Your task to perform on an android device: uninstall "PUBG MOBILE" Image 0: 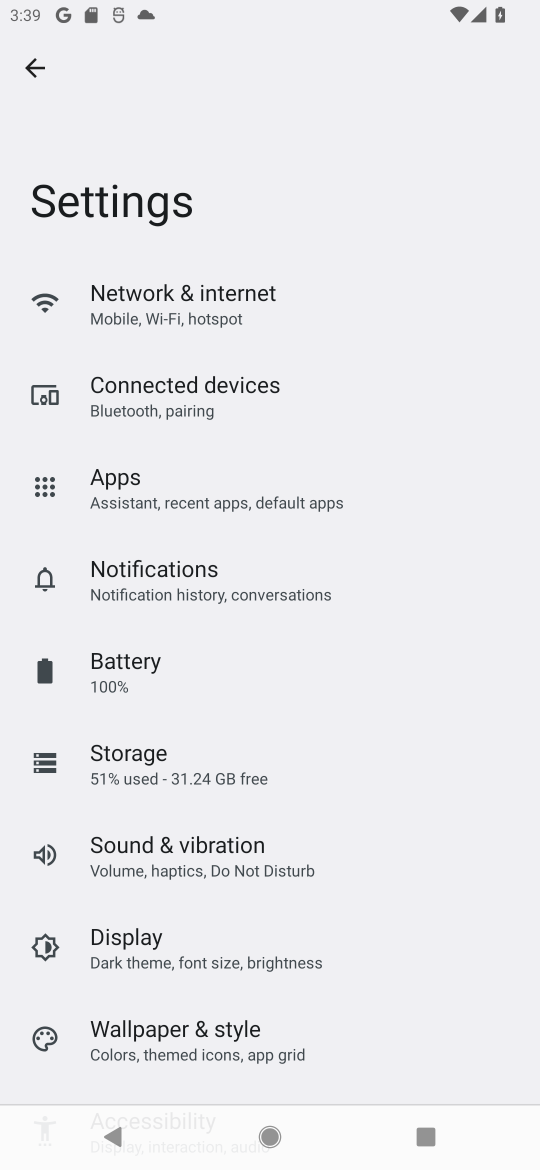
Step 0: press home button
Your task to perform on an android device: uninstall "PUBG MOBILE" Image 1: 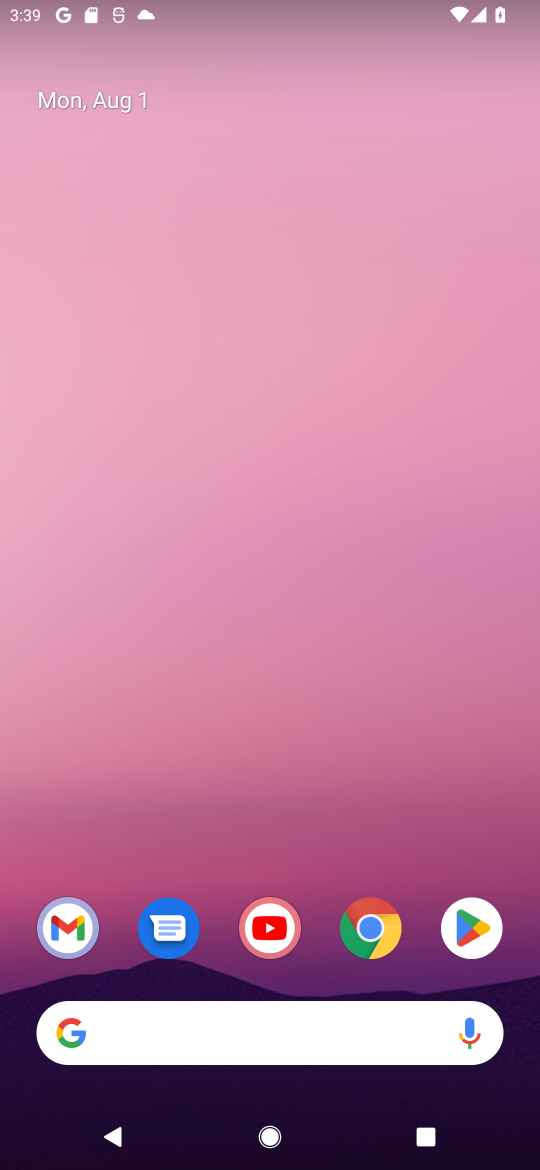
Step 1: click (485, 916)
Your task to perform on an android device: uninstall "PUBG MOBILE" Image 2: 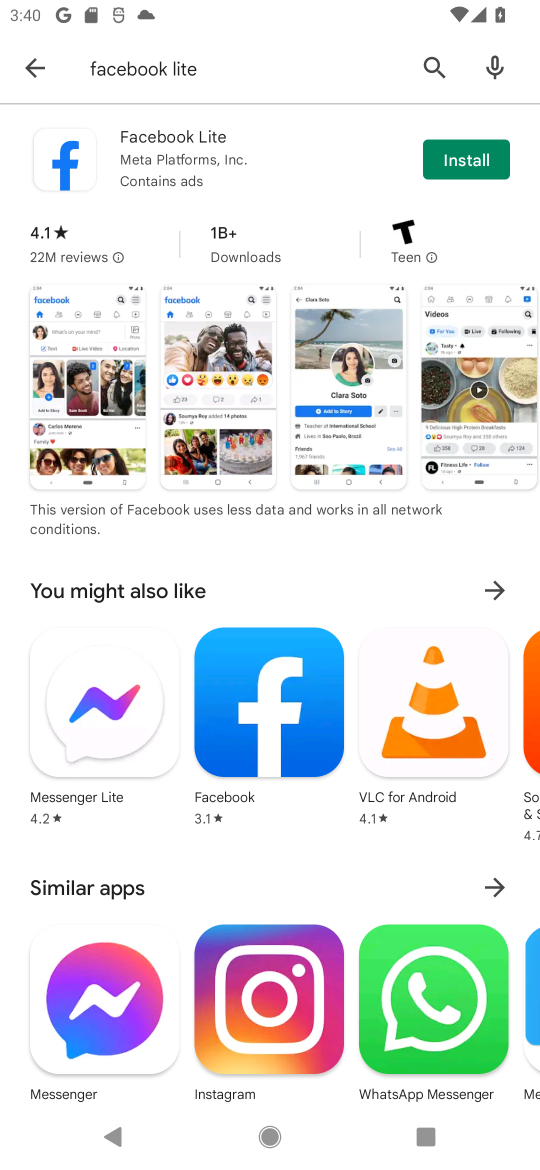
Step 2: click (435, 72)
Your task to perform on an android device: uninstall "PUBG MOBILE" Image 3: 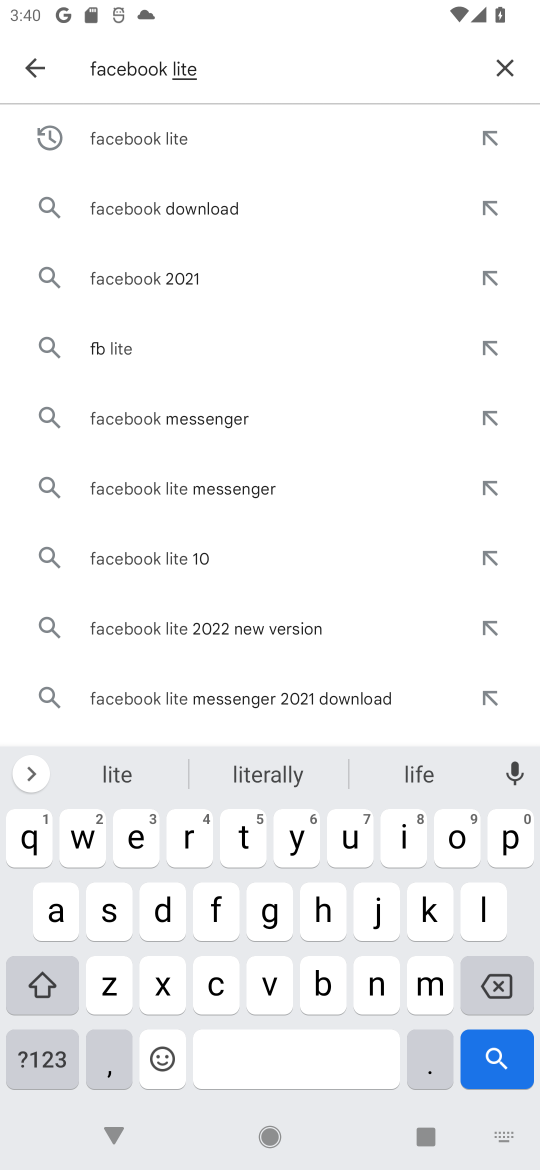
Step 3: click (505, 67)
Your task to perform on an android device: uninstall "PUBG MOBILE" Image 4: 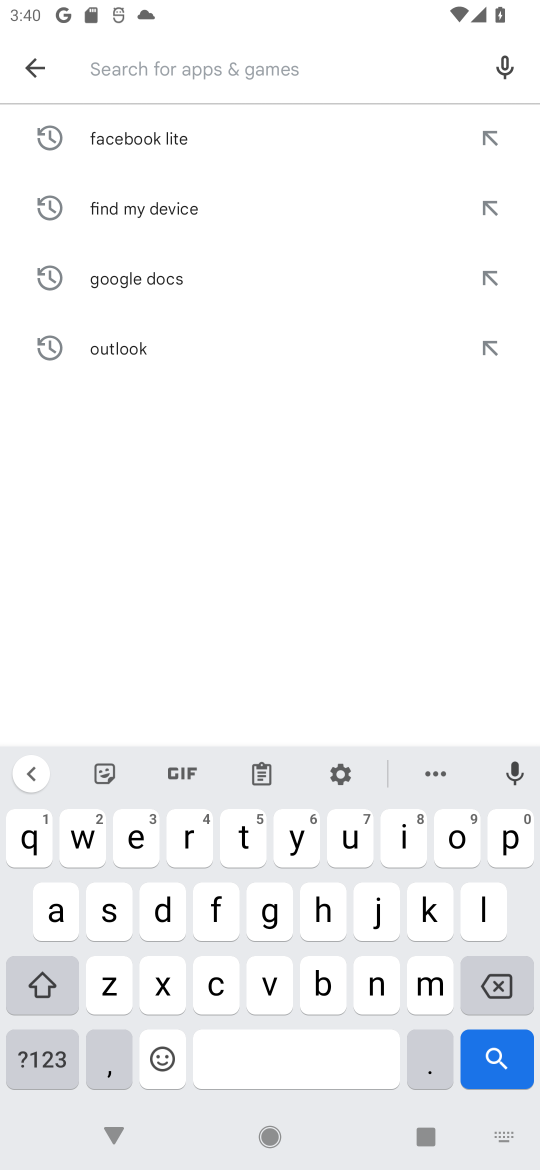
Step 4: click (514, 843)
Your task to perform on an android device: uninstall "PUBG MOBILE" Image 5: 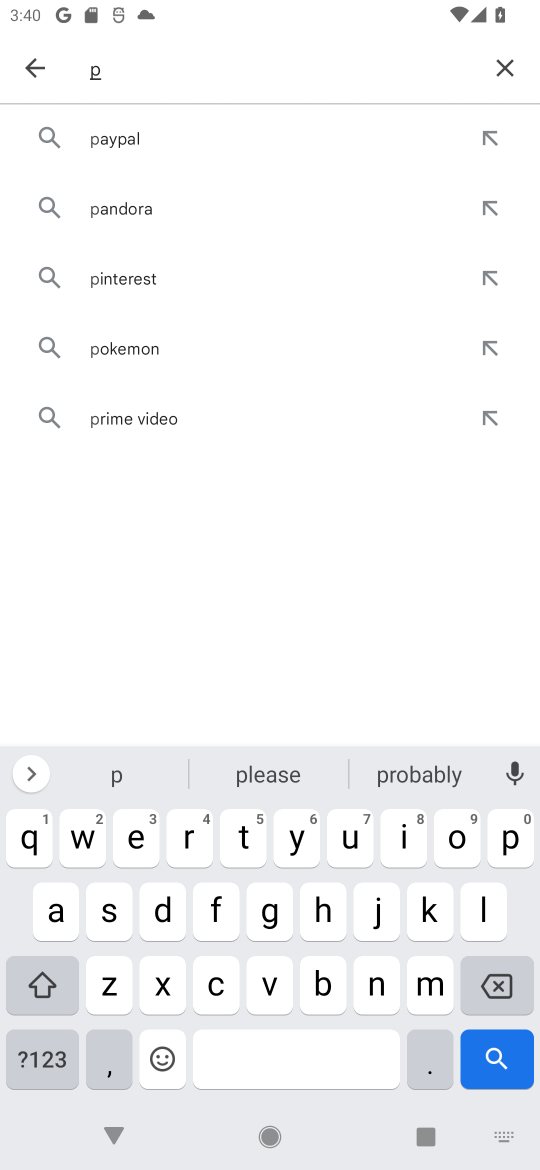
Step 5: click (348, 842)
Your task to perform on an android device: uninstall "PUBG MOBILE" Image 6: 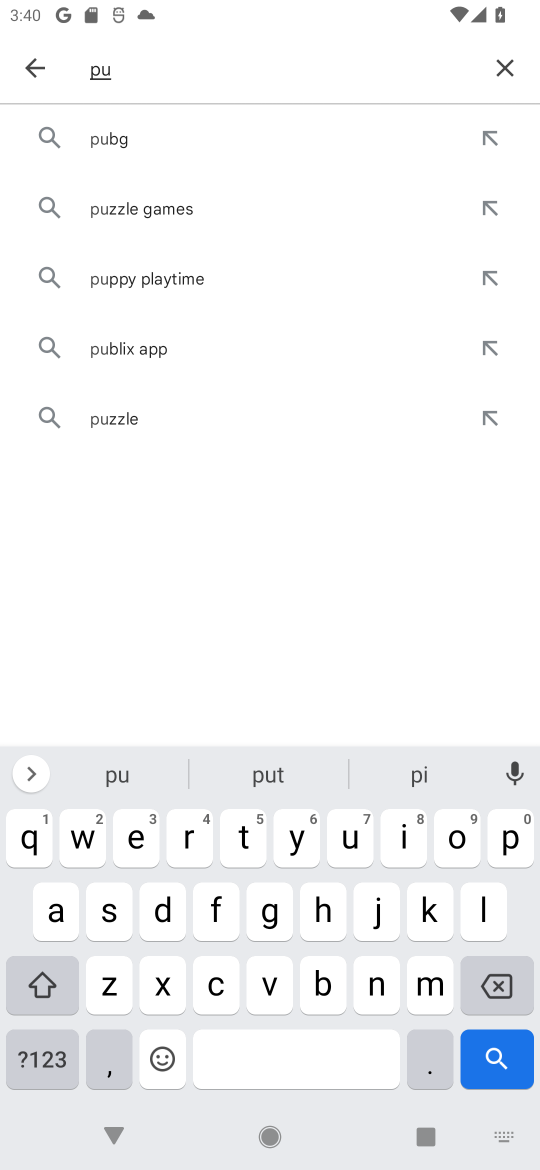
Step 6: click (322, 981)
Your task to perform on an android device: uninstall "PUBG MOBILE" Image 7: 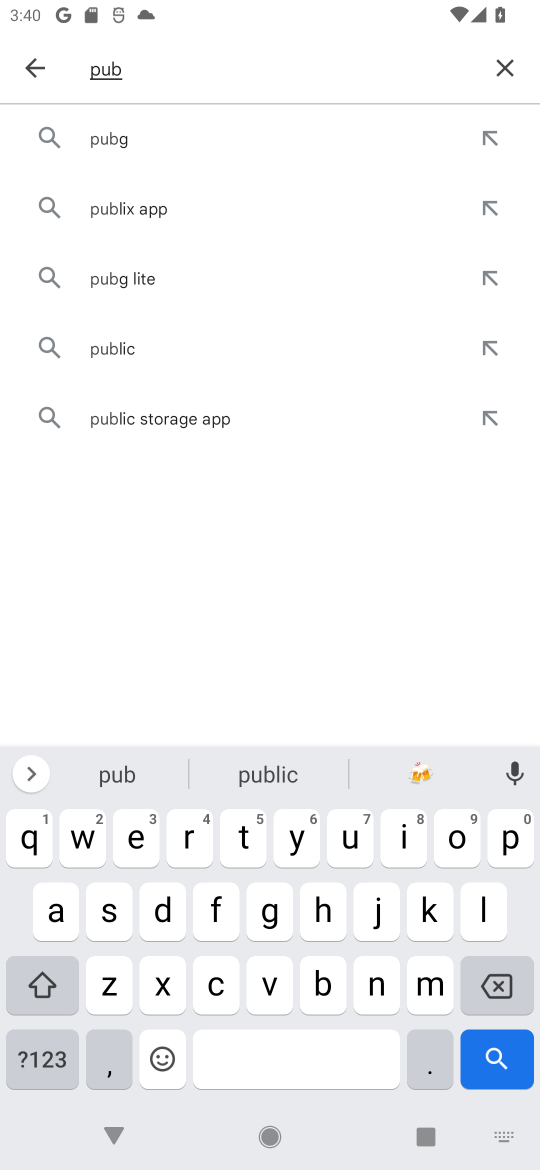
Step 7: click (269, 908)
Your task to perform on an android device: uninstall "PUBG MOBILE" Image 8: 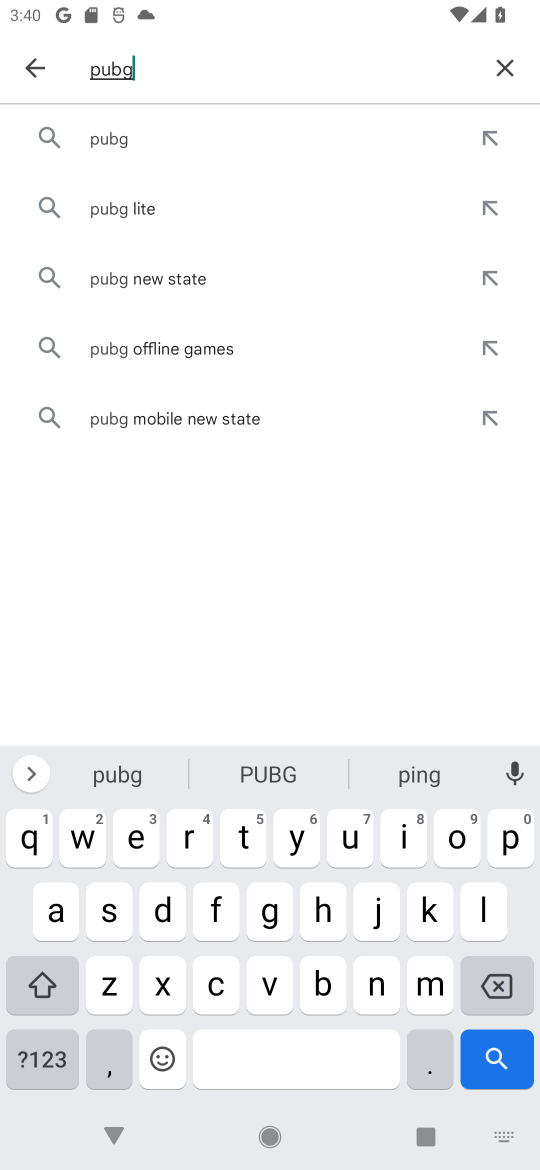
Step 8: click (271, 767)
Your task to perform on an android device: uninstall "PUBG MOBILE" Image 9: 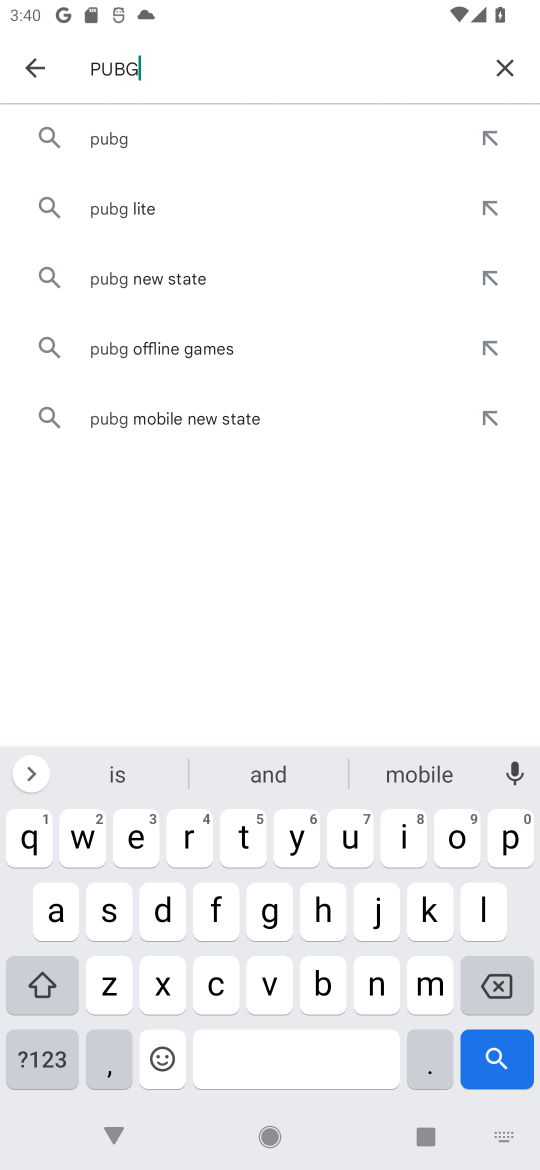
Step 9: click (407, 772)
Your task to perform on an android device: uninstall "PUBG MOBILE" Image 10: 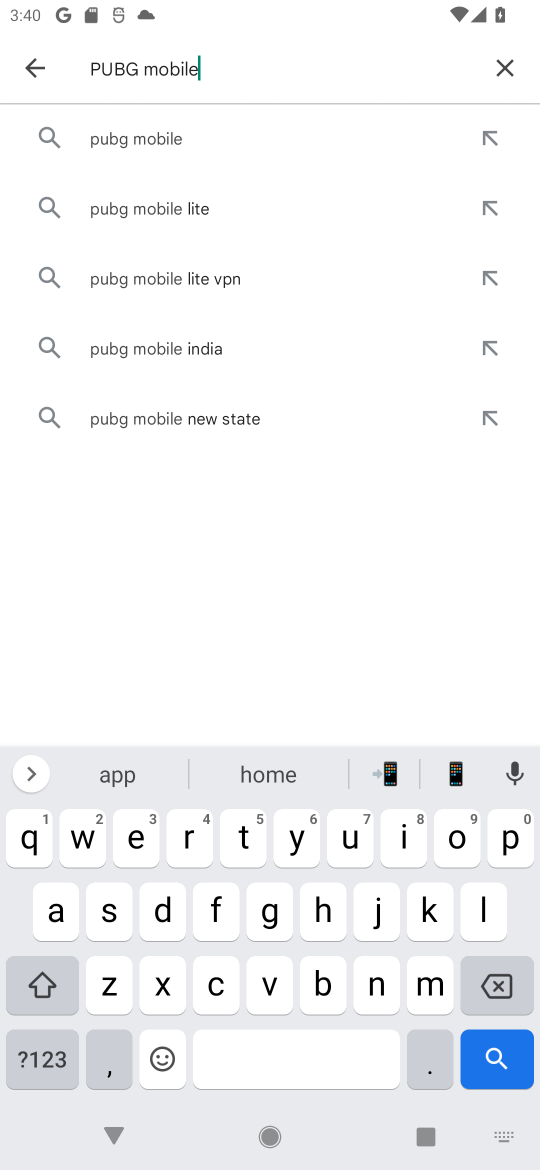
Step 10: click (182, 144)
Your task to perform on an android device: uninstall "PUBG MOBILE" Image 11: 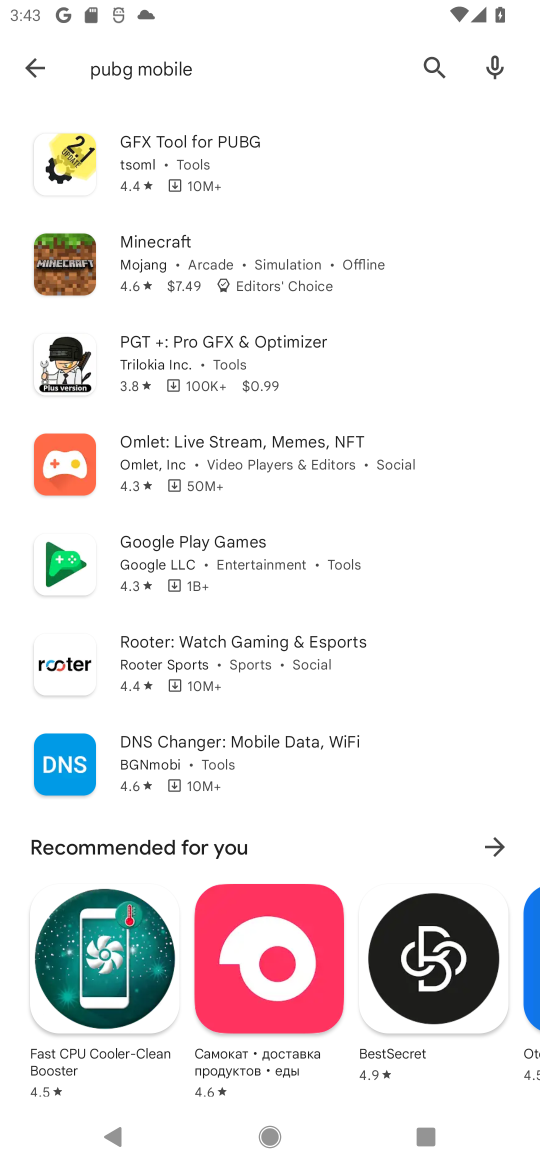
Step 11: task complete